Your task to perform on an android device: Open ESPN.com Image 0: 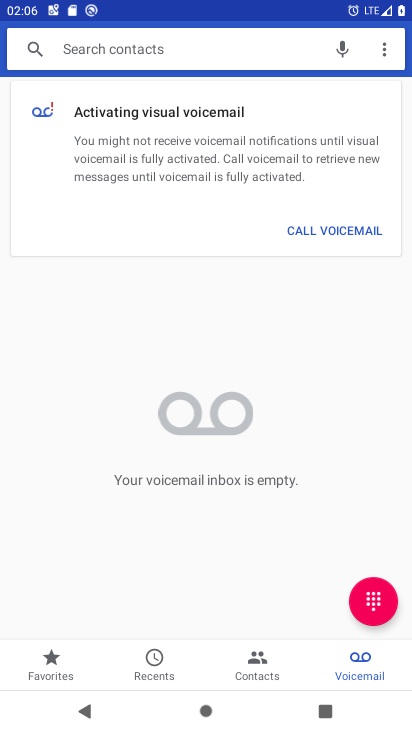
Step 0: press home button
Your task to perform on an android device: Open ESPN.com Image 1: 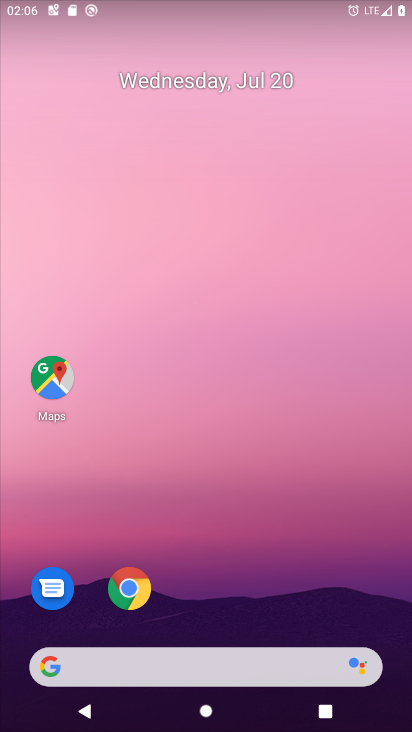
Step 1: click (145, 586)
Your task to perform on an android device: Open ESPN.com Image 2: 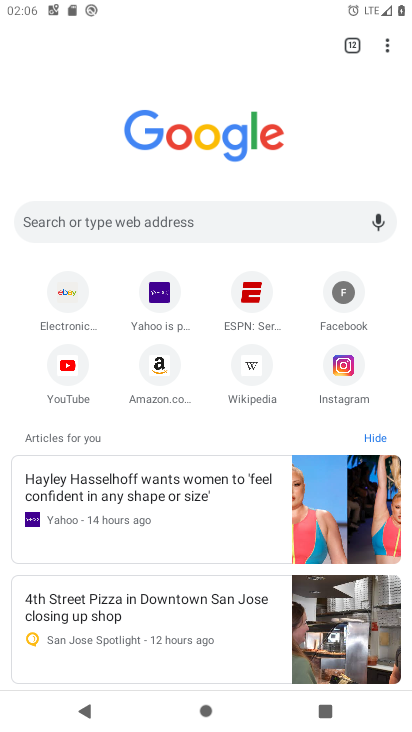
Step 2: click (249, 293)
Your task to perform on an android device: Open ESPN.com Image 3: 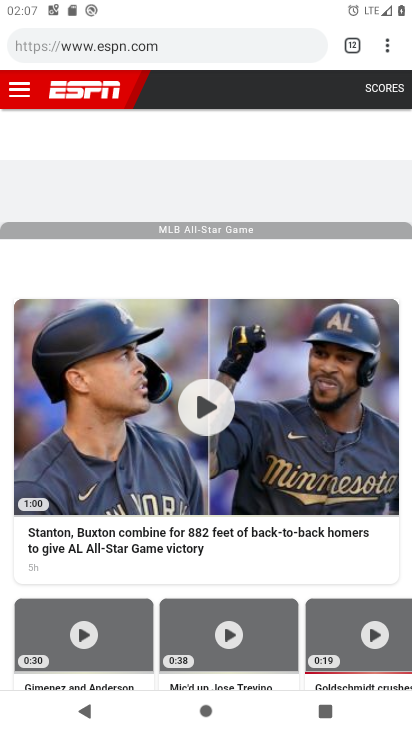
Step 3: task complete